Your task to perform on an android device: Do I have any events today? Image 0: 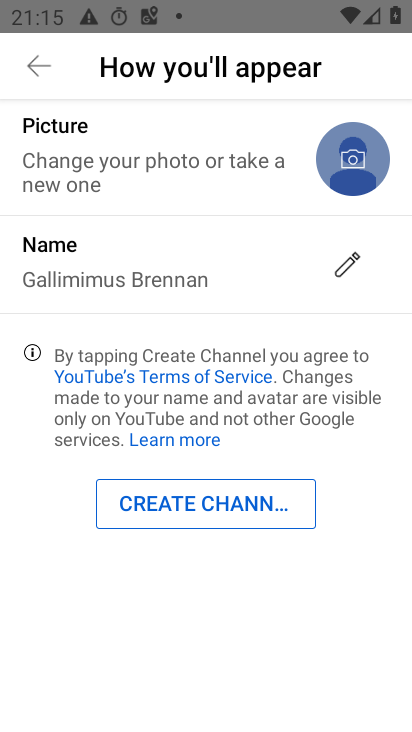
Step 0: task complete